Your task to perform on an android device: Search for pizza restaurants on Maps Image 0: 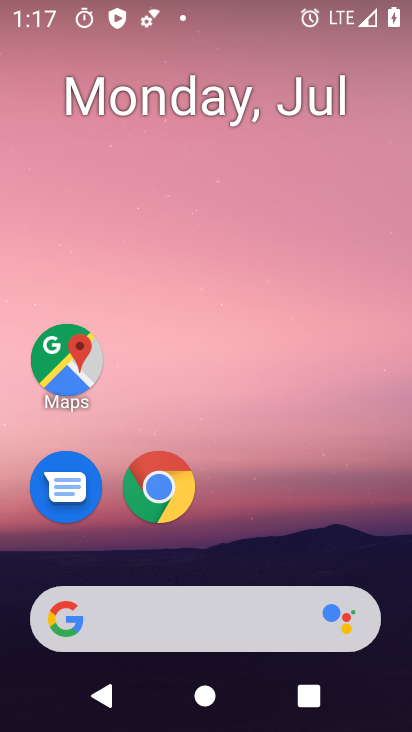
Step 0: click (72, 353)
Your task to perform on an android device: Search for pizza restaurants on Maps Image 1: 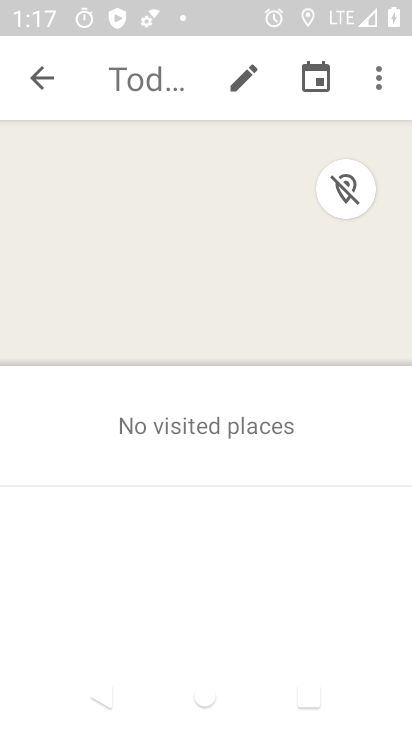
Step 1: click (37, 74)
Your task to perform on an android device: Search for pizza restaurants on Maps Image 2: 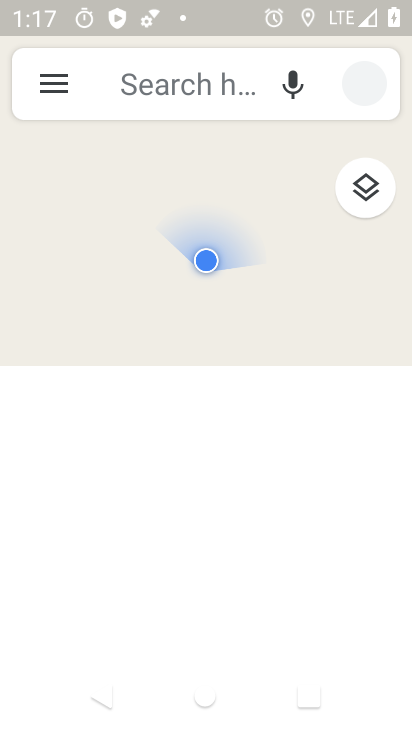
Step 2: click (162, 86)
Your task to perform on an android device: Search for pizza restaurants on Maps Image 3: 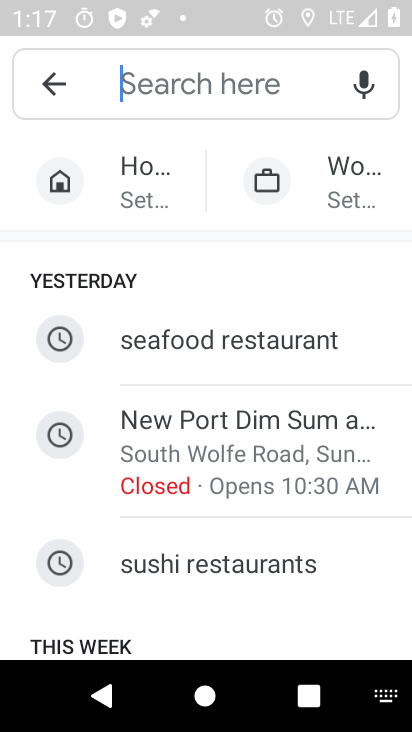
Step 3: type " pizza restaurants"
Your task to perform on an android device: Search for pizza restaurants on Maps Image 4: 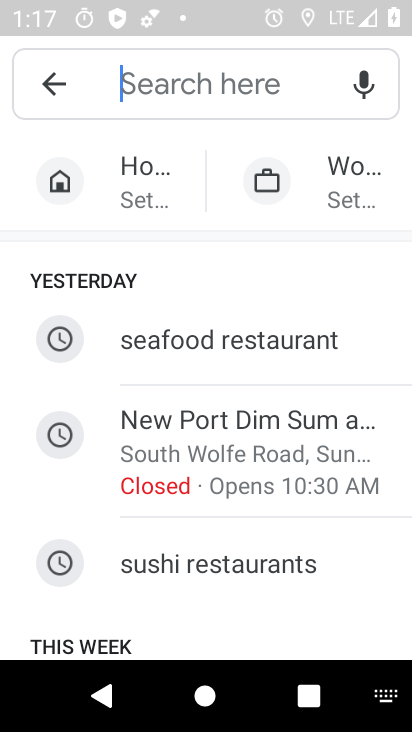
Step 4: click (155, 80)
Your task to perform on an android device: Search for pizza restaurants on Maps Image 5: 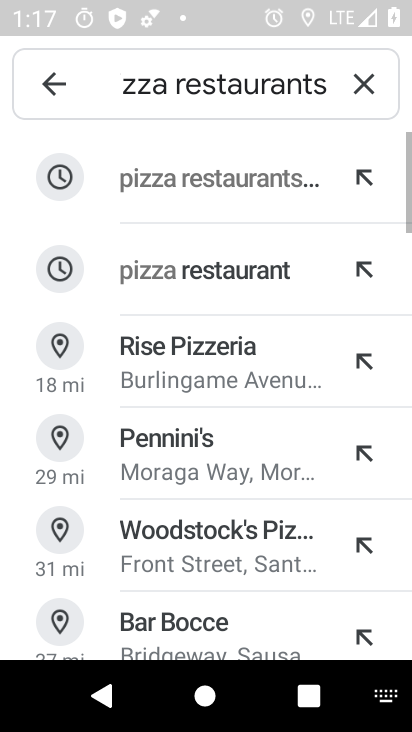
Step 5: press enter
Your task to perform on an android device: Search for pizza restaurants on Maps Image 6: 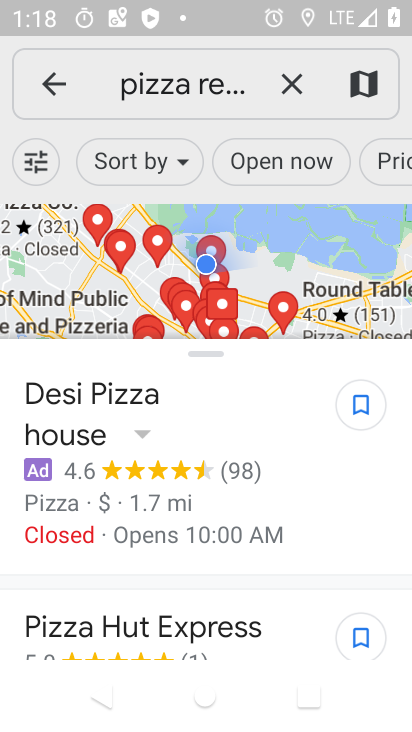
Step 6: task complete